Your task to perform on an android device: set the timer Image 0: 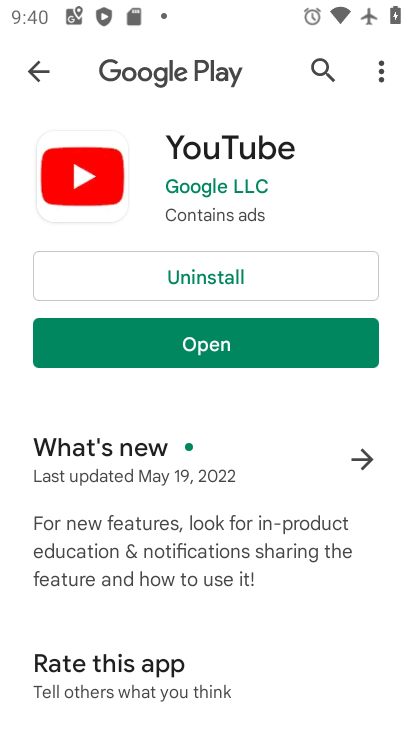
Step 0: press home button
Your task to perform on an android device: set the timer Image 1: 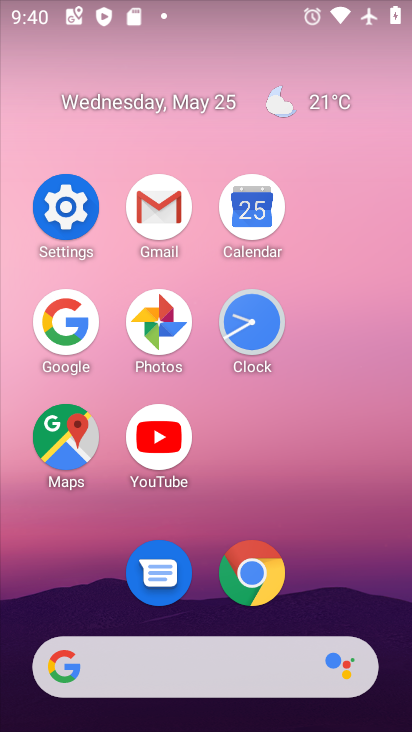
Step 1: click (238, 312)
Your task to perform on an android device: set the timer Image 2: 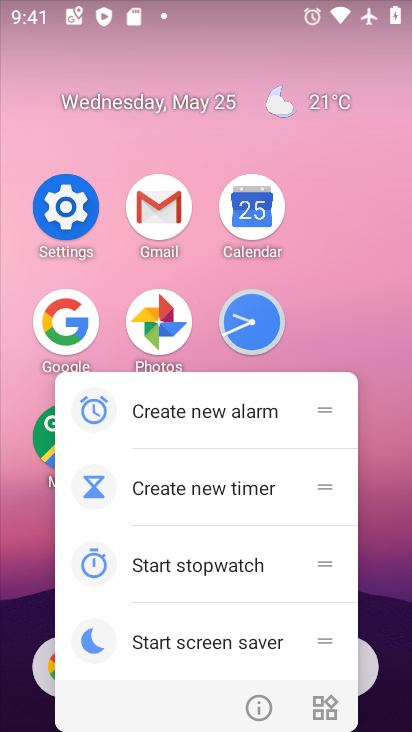
Step 2: click (267, 325)
Your task to perform on an android device: set the timer Image 3: 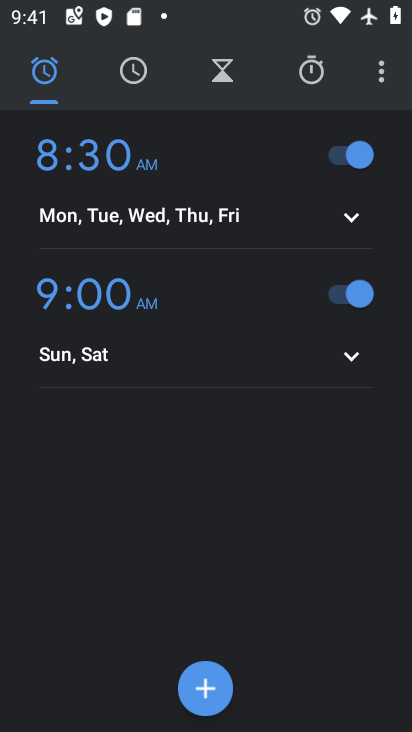
Step 3: click (222, 94)
Your task to perform on an android device: set the timer Image 4: 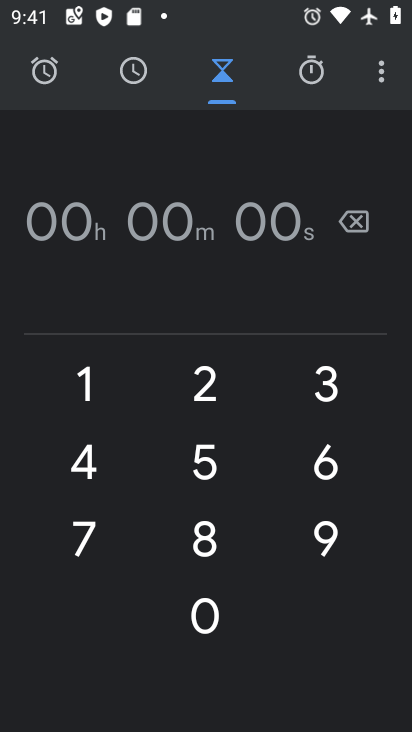
Step 4: click (223, 383)
Your task to perform on an android device: set the timer Image 5: 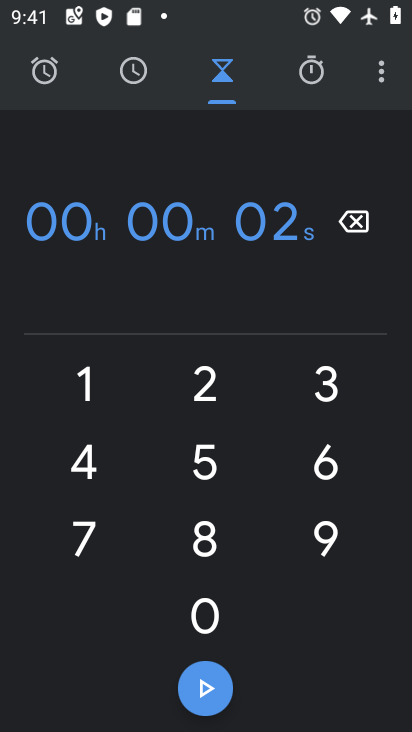
Step 5: click (209, 398)
Your task to perform on an android device: set the timer Image 6: 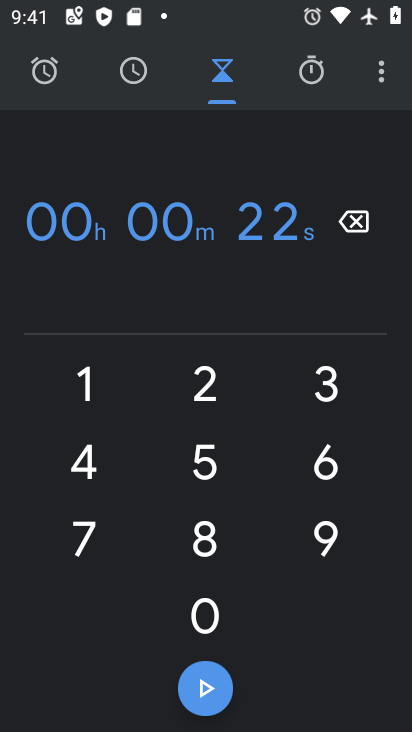
Step 6: click (217, 689)
Your task to perform on an android device: set the timer Image 7: 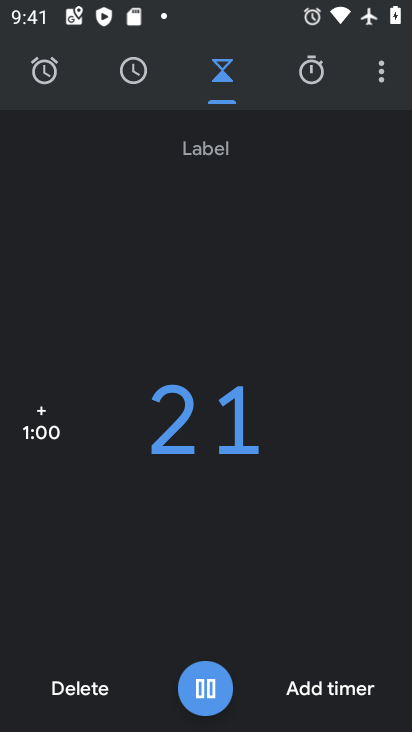
Step 7: task complete